Your task to perform on an android device: move a message to another label in the gmail app Image 0: 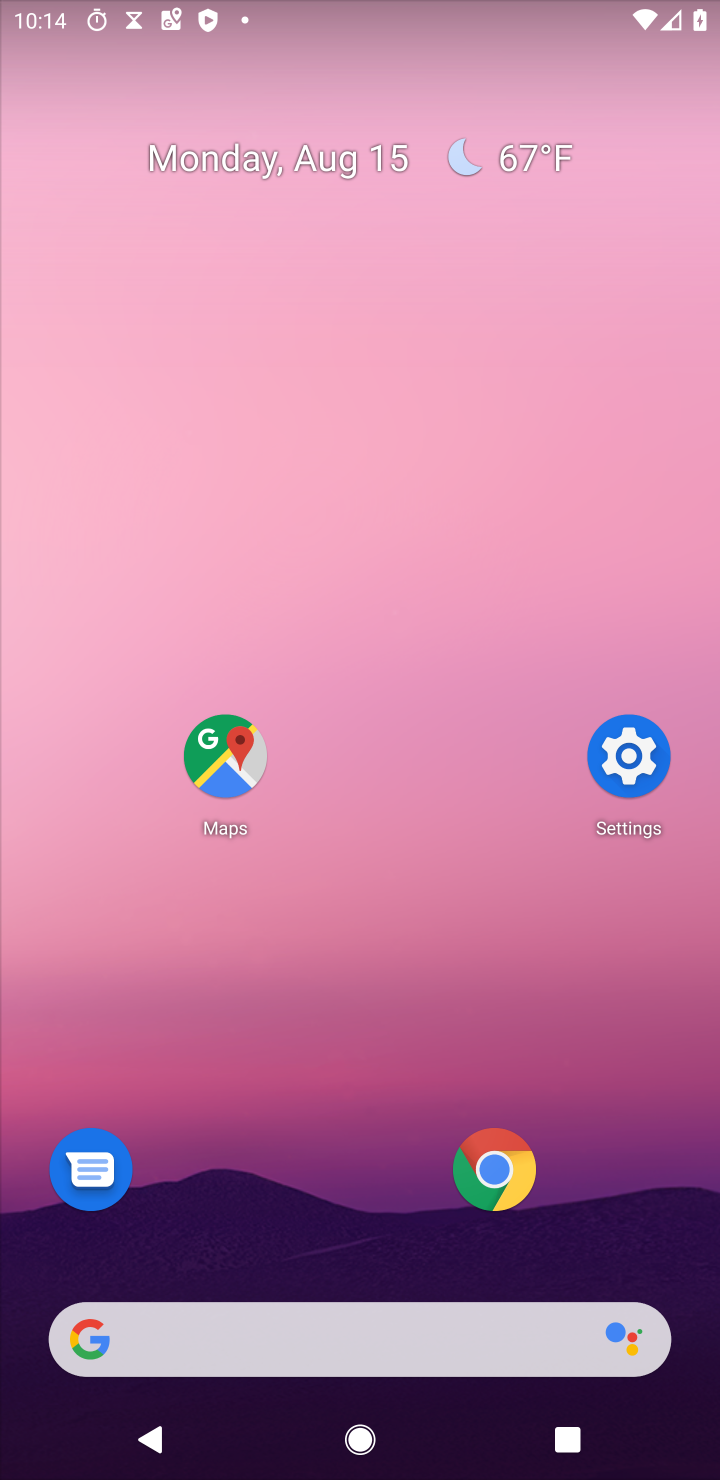
Step 0: drag from (384, 1148) to (655, 120)
Your task to perform on an android device: move a message to another label in the gmail app Image 1: 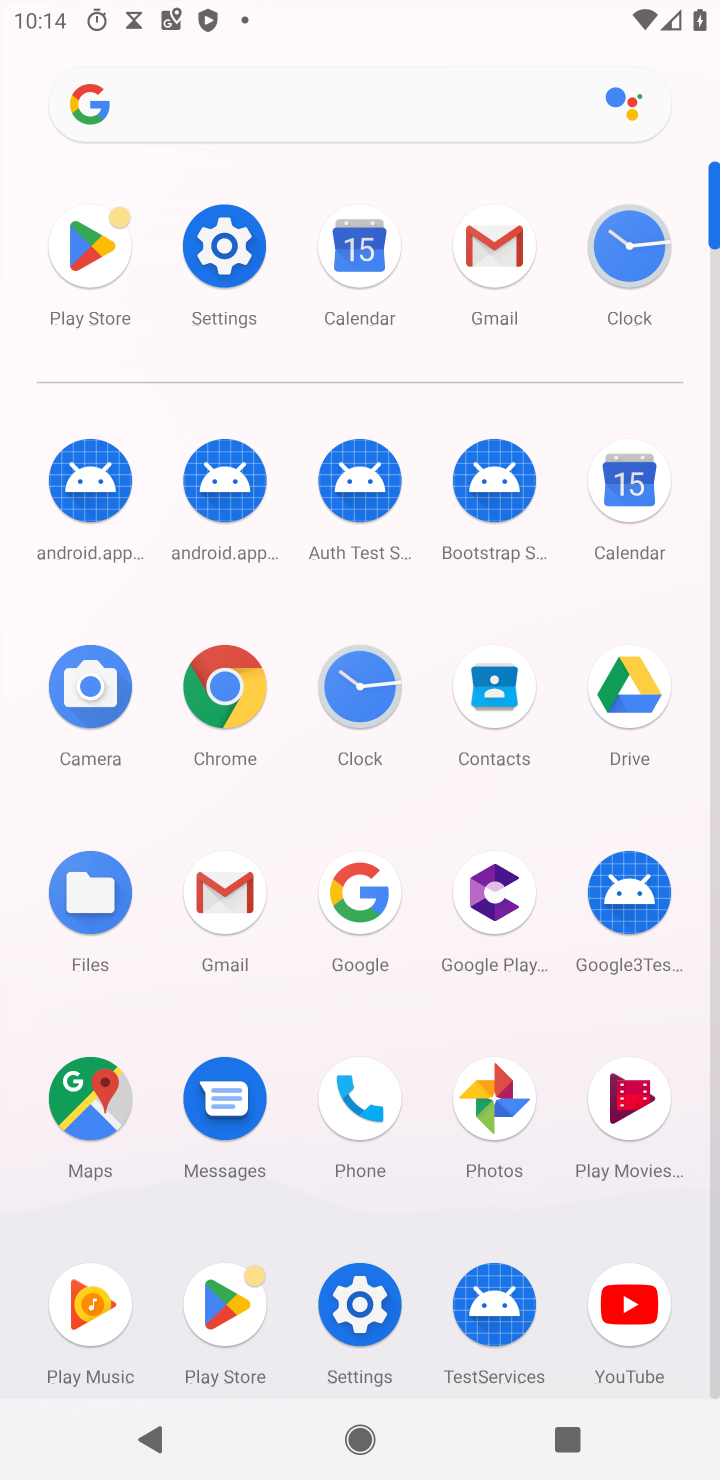
Step 1: click (485, 252)
Your task to perform on an android device: move a message to another label in the gmail app Image 2: 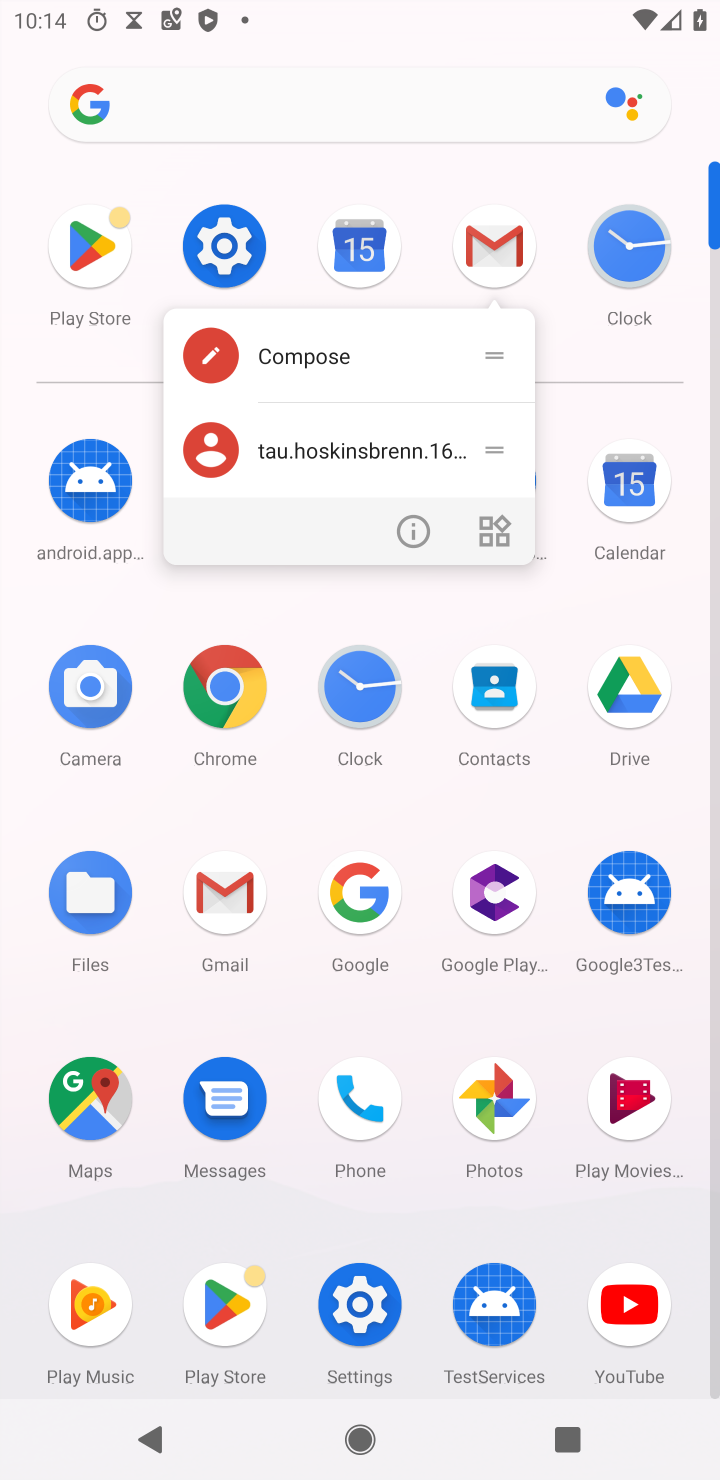
Step 2: click (457, 259)
Your task to perform on an android device: move a message to another label in the gmail app Image 3: 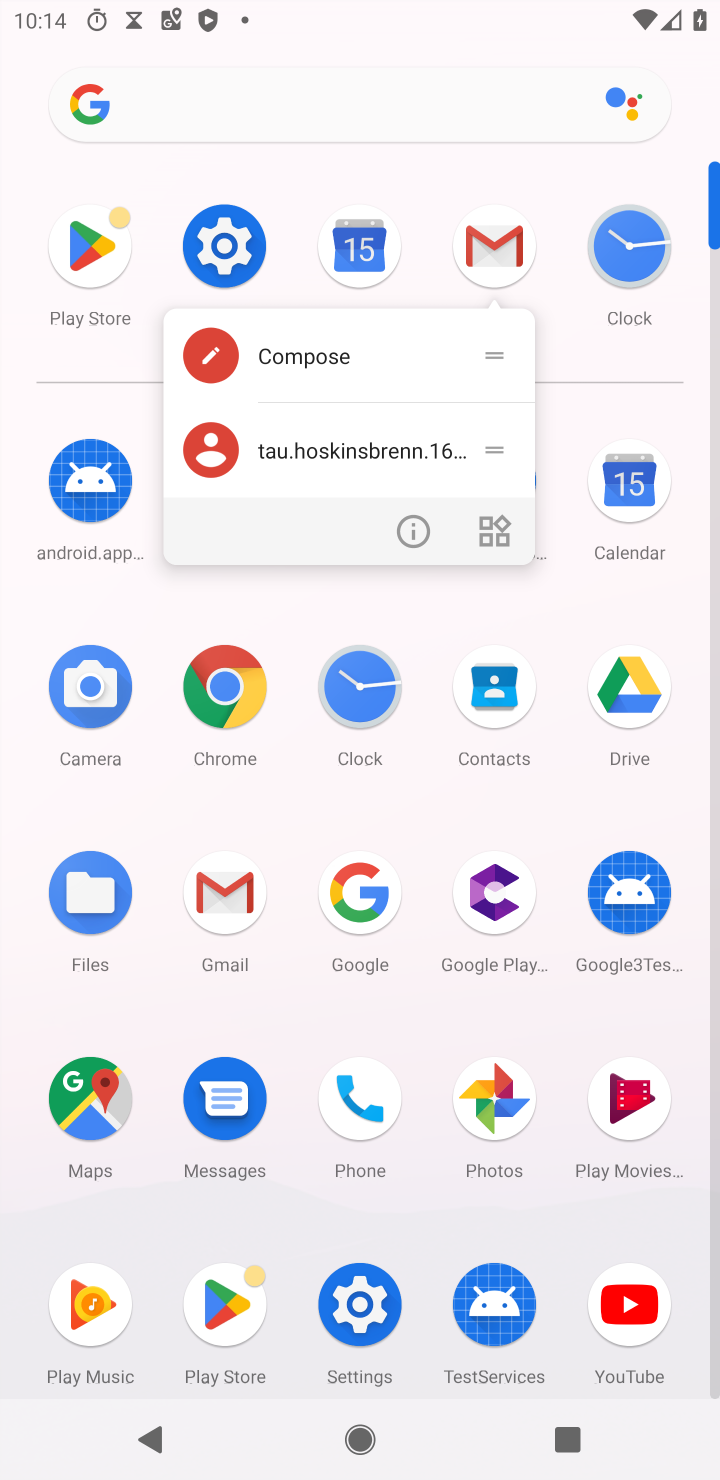
Step 3: click (505, 247)
Your task to perform on an android device: move a message to another label in the gmail app Image 4: 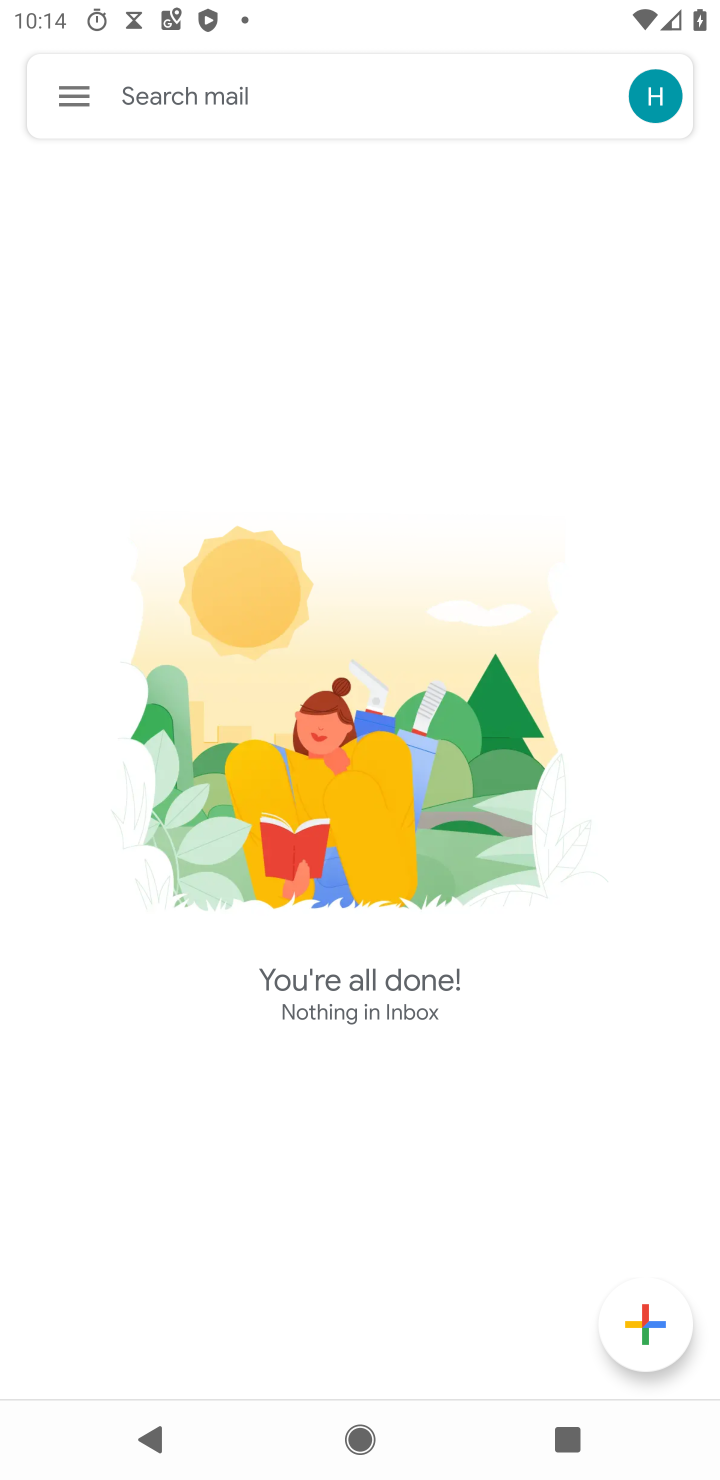
Step 4: click (70, 89)
Your task to perform on an android device: move a message to another label in the gmail app Image 5: 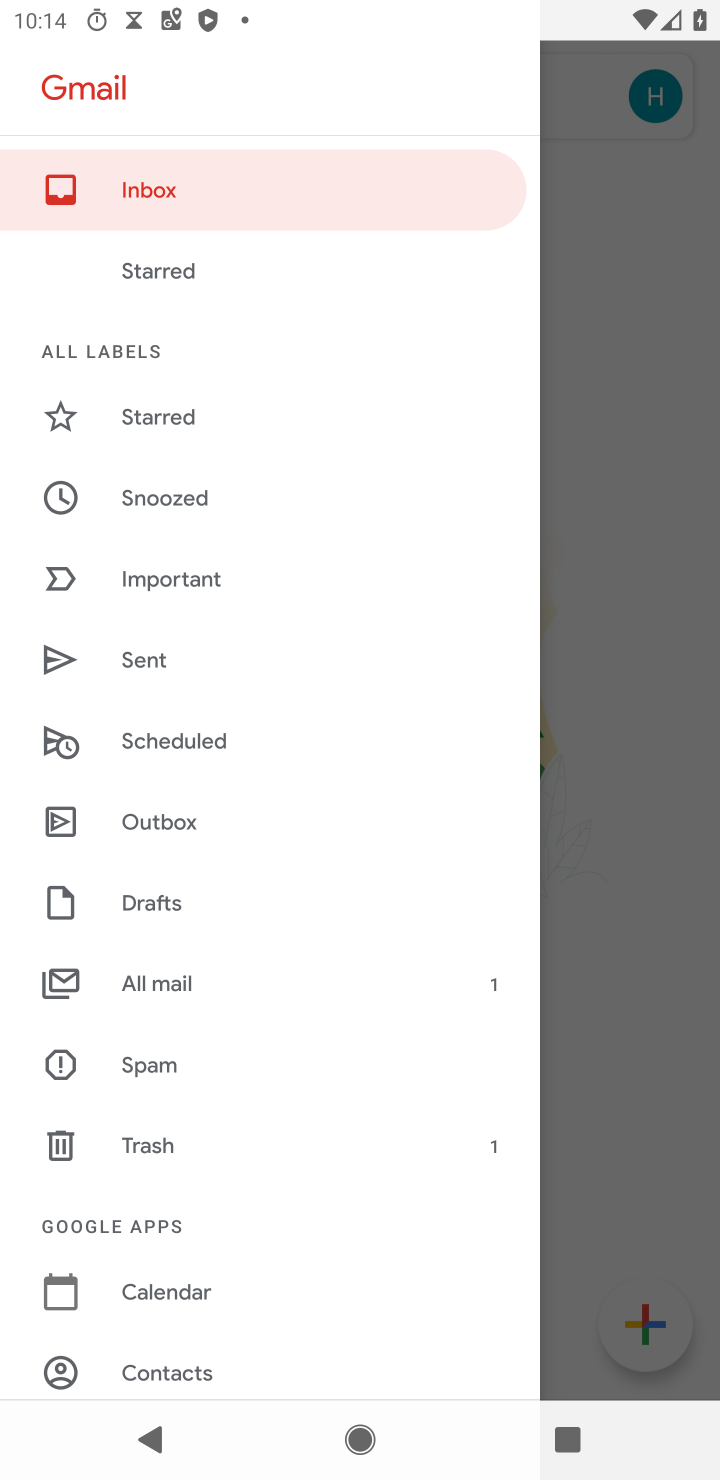
Step 5: click (213, 974)
Your task to perform on an android device: move a message to another label in the gmail app Image 6: 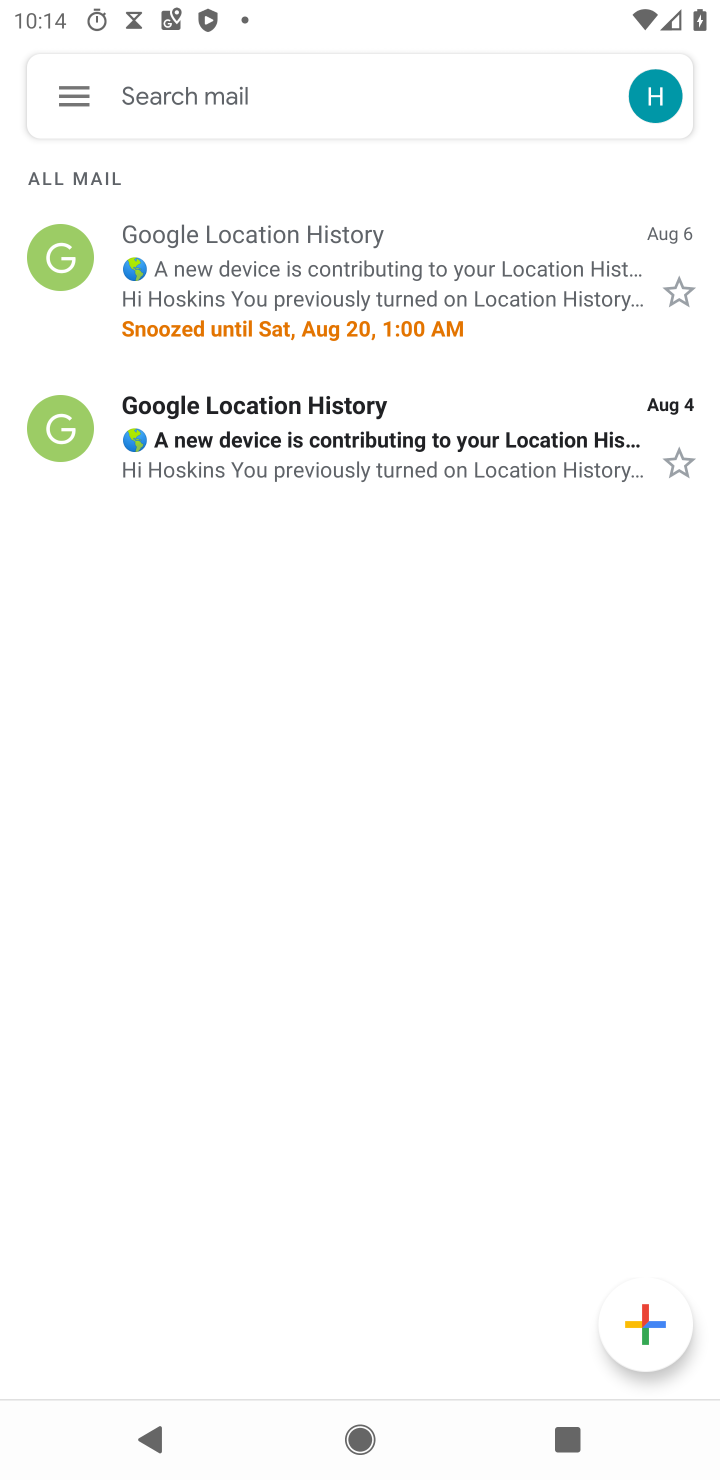
Step 6: click (320, 285)
Your task to perform on an android device: move a message to another label in the gmail app Image 7: 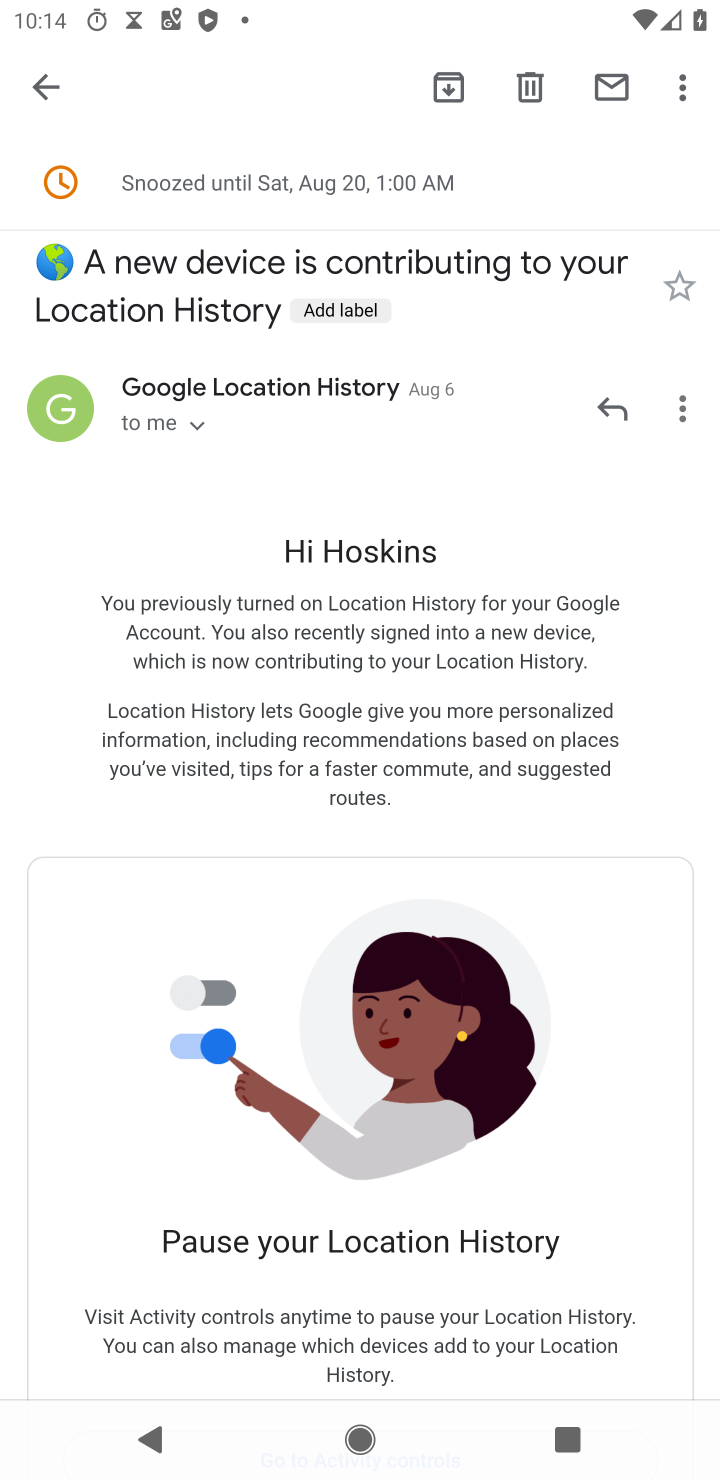
Step 7: click (353, 305)
Your task to perform on an android device: move a message to another label in the gmail app Image 8: 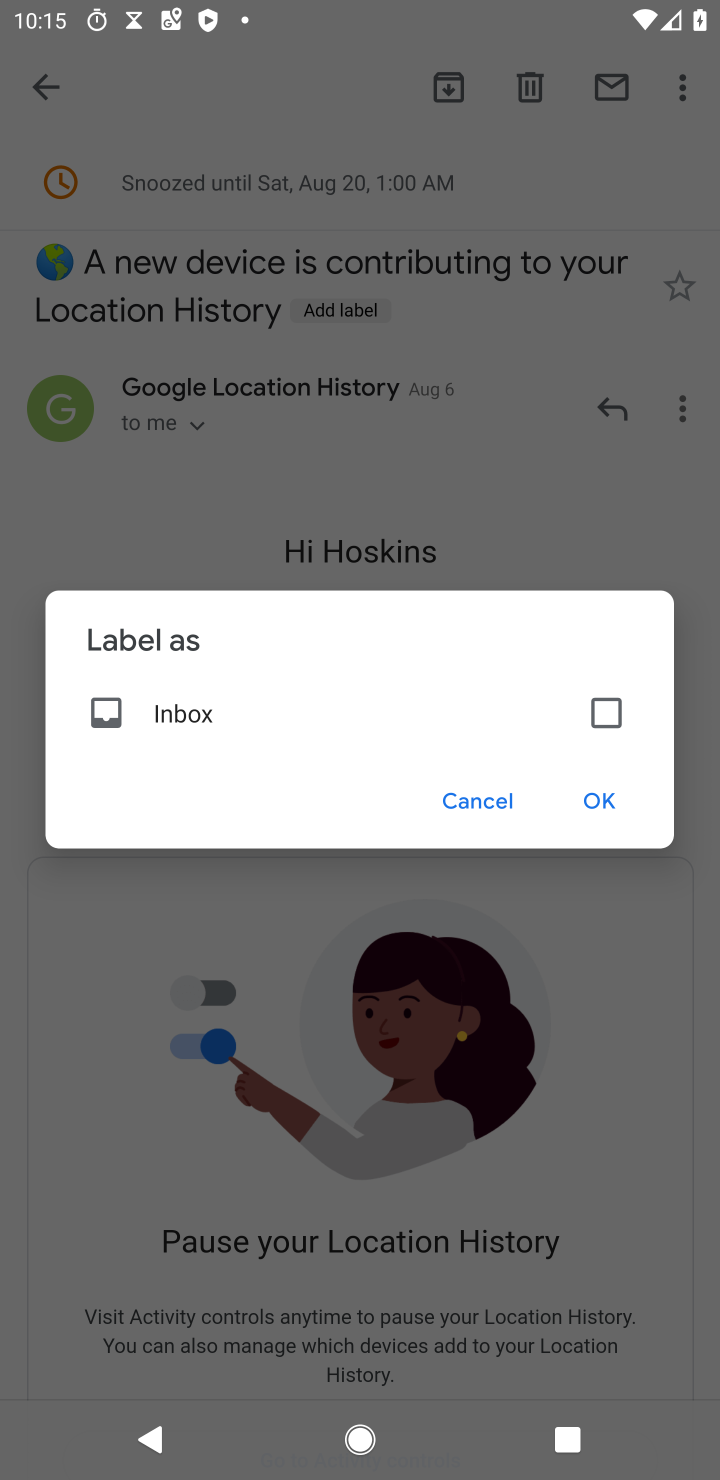
Step 8: click (602, 713)
Your task to perform on an android device: move a message to another label in the gmail app Image 9: 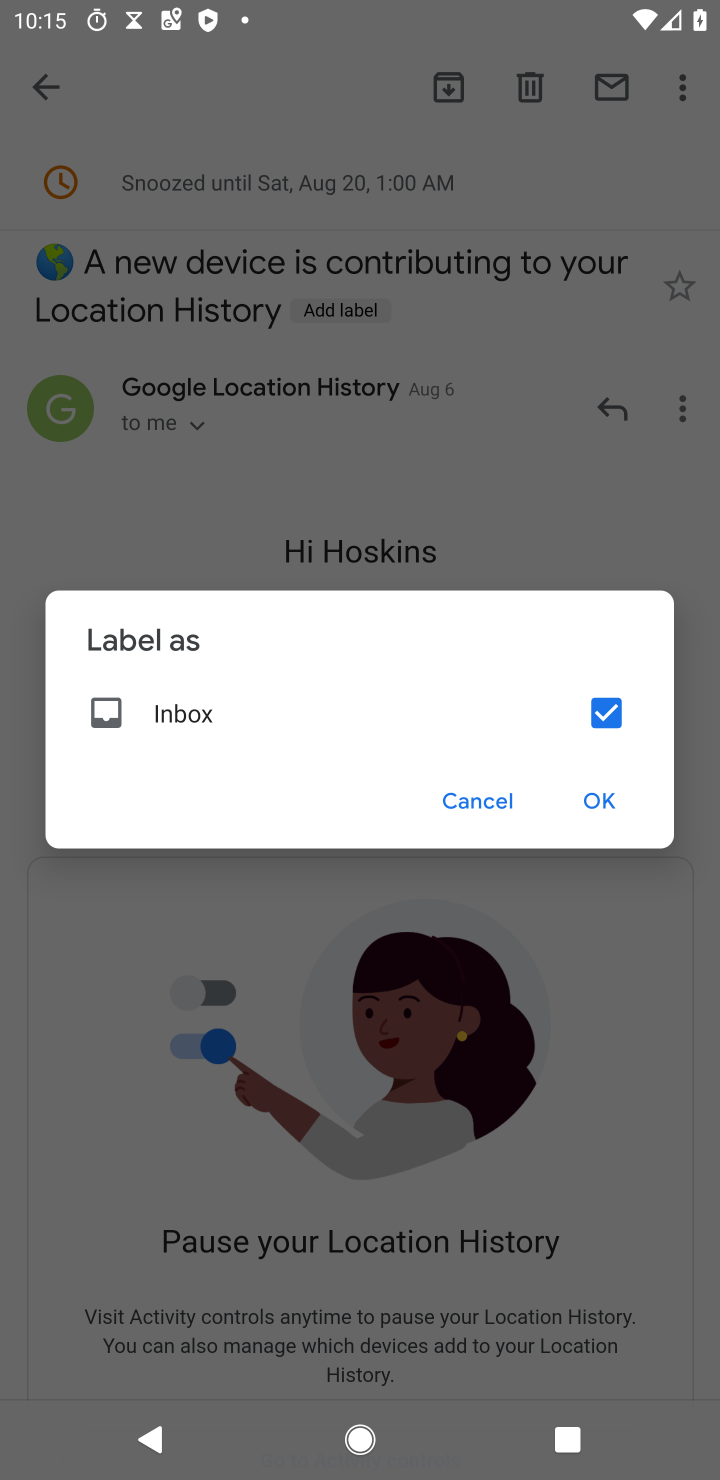
Step 9: click (590, 791)
Your task to perform on an android device: move a message to another label in the gmail app Image 10: 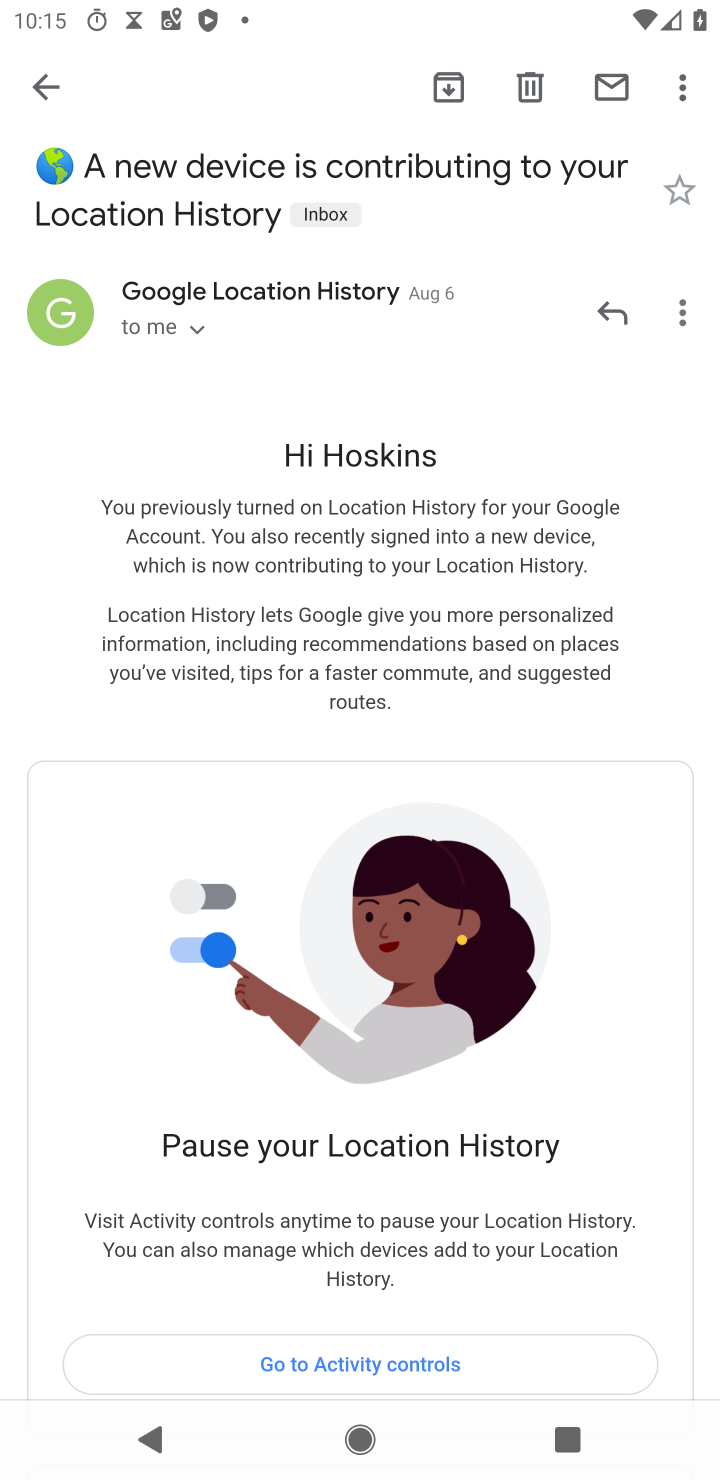
Step 10: click (49, 88)
Your task to perform on an android device: move a message to another label in the gmail app Image 11: 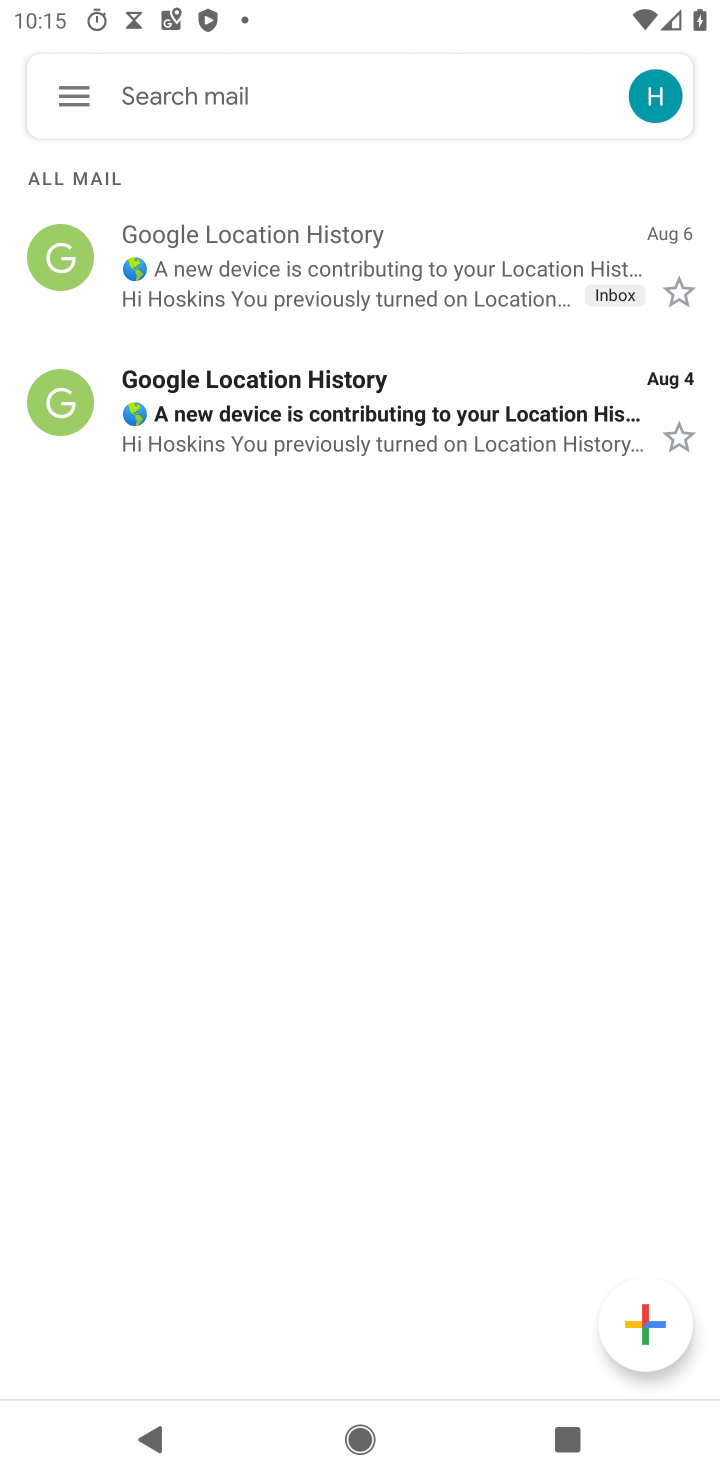
Step 11: task complete